Your task to perform on an android device: Set the phone to "Do not disturb". Image 0: 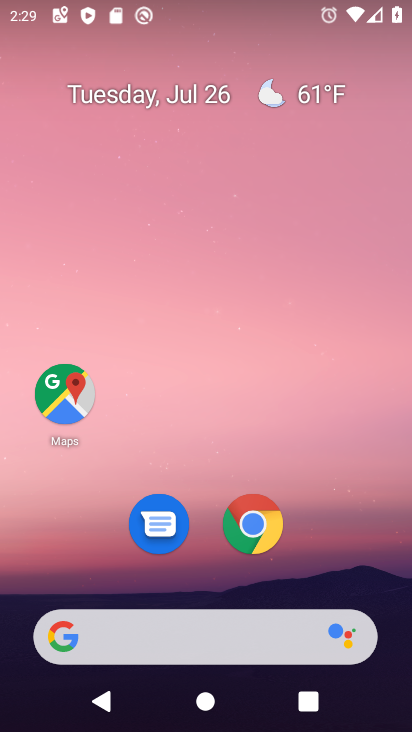
Step 0: press home button
Your task to perform on an android device: Set the phone to "Do not disturb". Image 1: 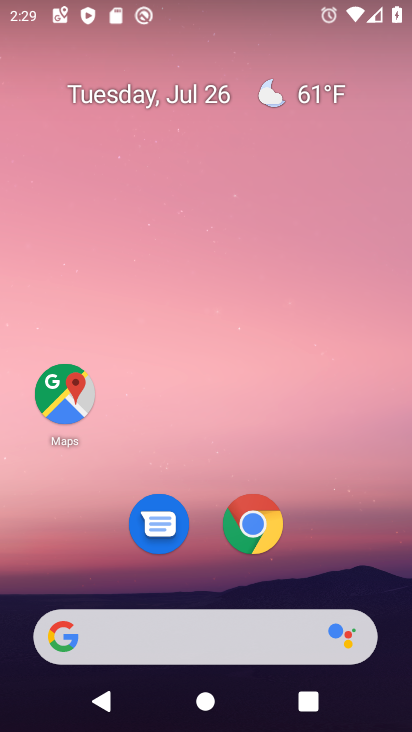
Step 1: drag from (153, 644) to (278, 50)
Your task to perform on an android device: Set the phone to "Do not disturb". Image 2: 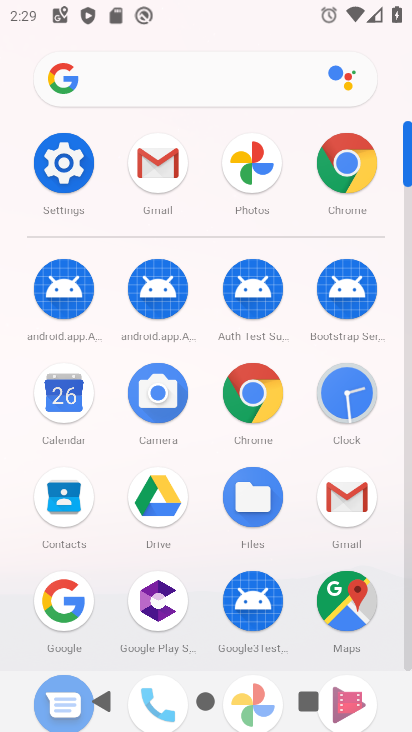
Step 2: click (61, 173)
Your task to perform on an android device: Set the phone to "Do not disturb". Image 3: 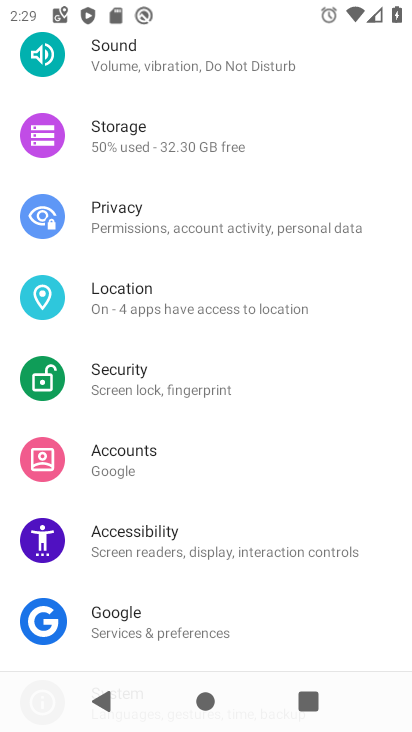
Step 3: click (165, 71)
Your task to perform on an android device: Set the phone to "Do not disturb". Image 4: 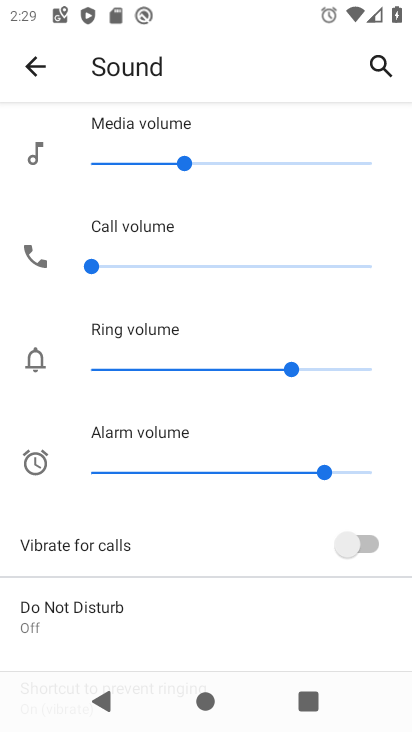
Step 4: drag from (188, 573) to (296, 148)
Your task to perform on an android device: Set the phone to "Do not disturb". Image 5: 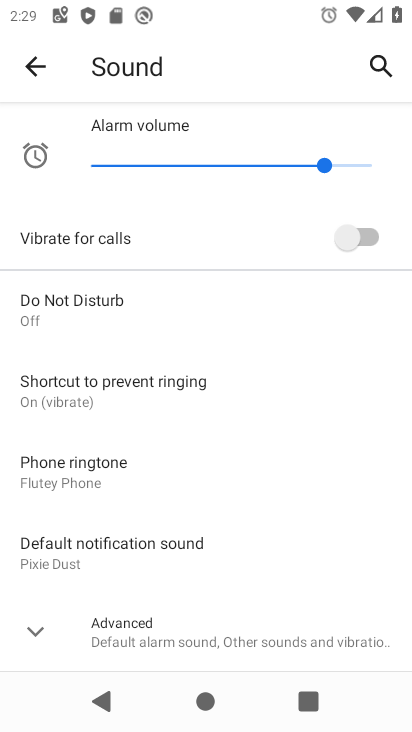
Step 5: click (82, 311)
Your task to perform on an android device: Set the phone to "Do not disturb". Image 6: 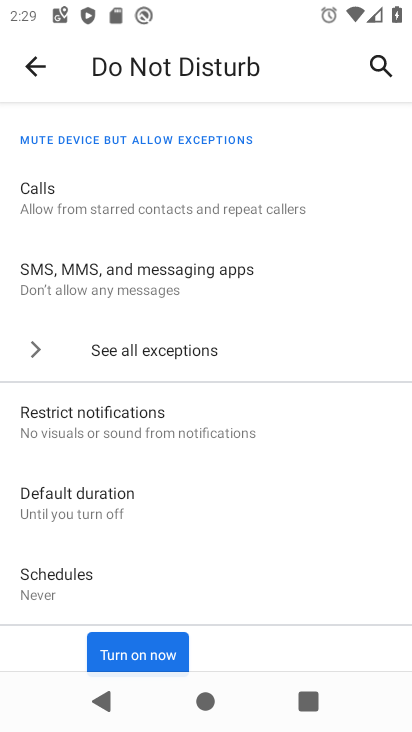
Step 6: click (141, 658)
Your task to perform on an android device: Set the phone to "Do not disturb". Image 7: 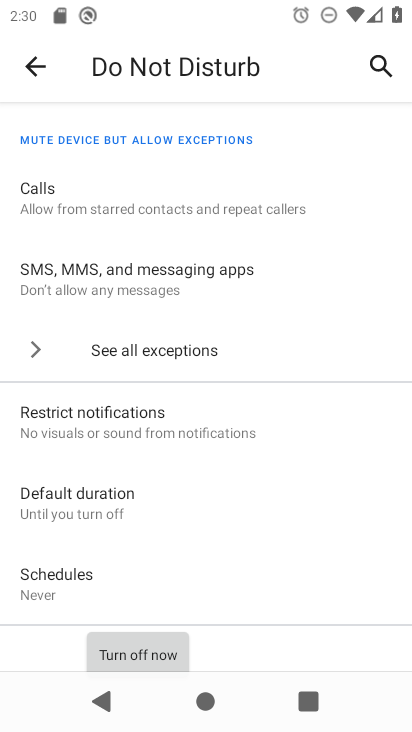
Step 7: task complete